Your task to perform on an android device: Search for flights from NYC to Sydney Image 0: 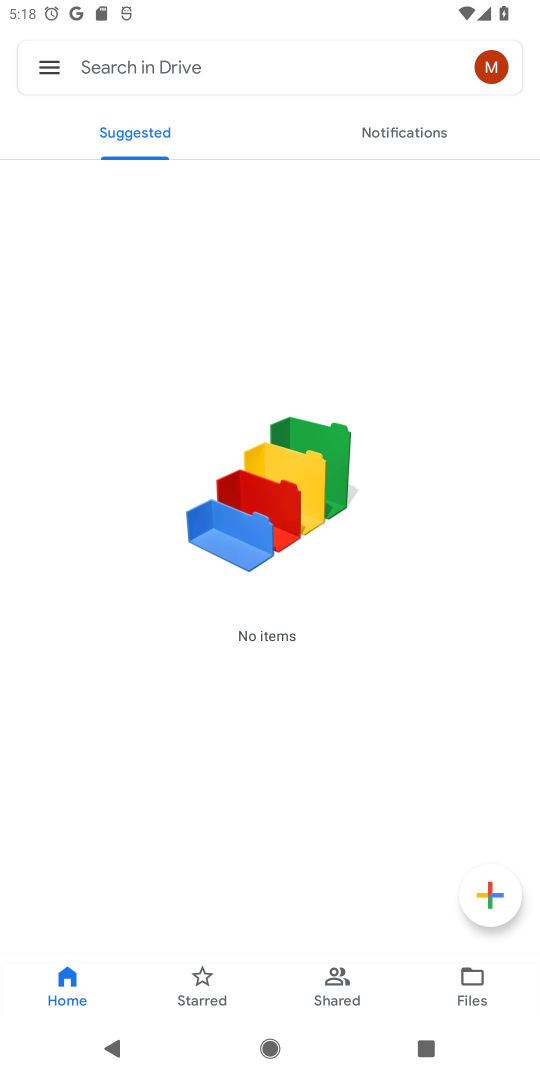
Step 0: press home button
Your task to perform on an android device: Search for flights from NYC to Sydney Image 1: 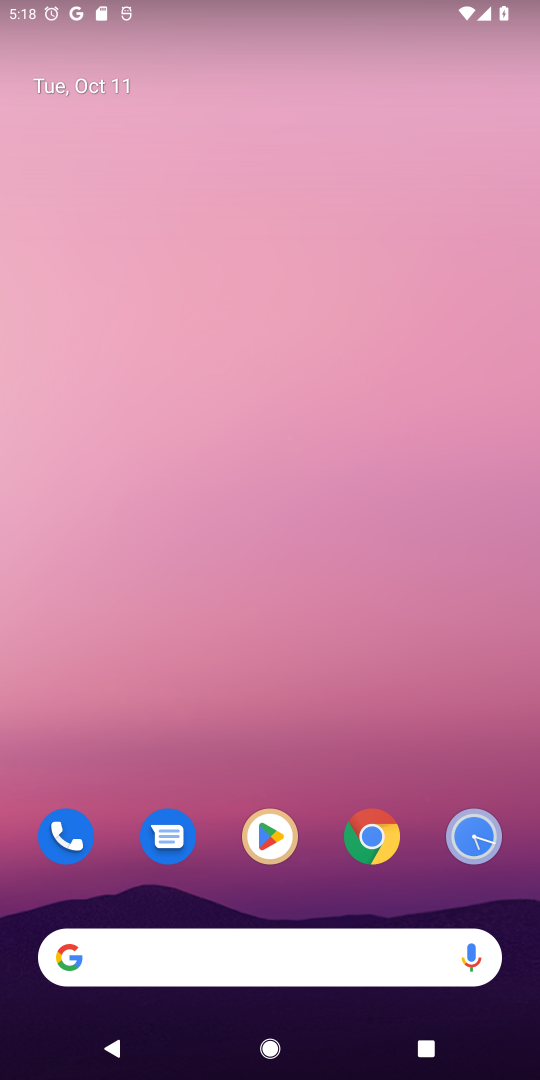
Step 1: drag from (394, 1030) to (356, 958)
Your task to perform on an android device: Search for flights from NYC to Sydney Image 2: 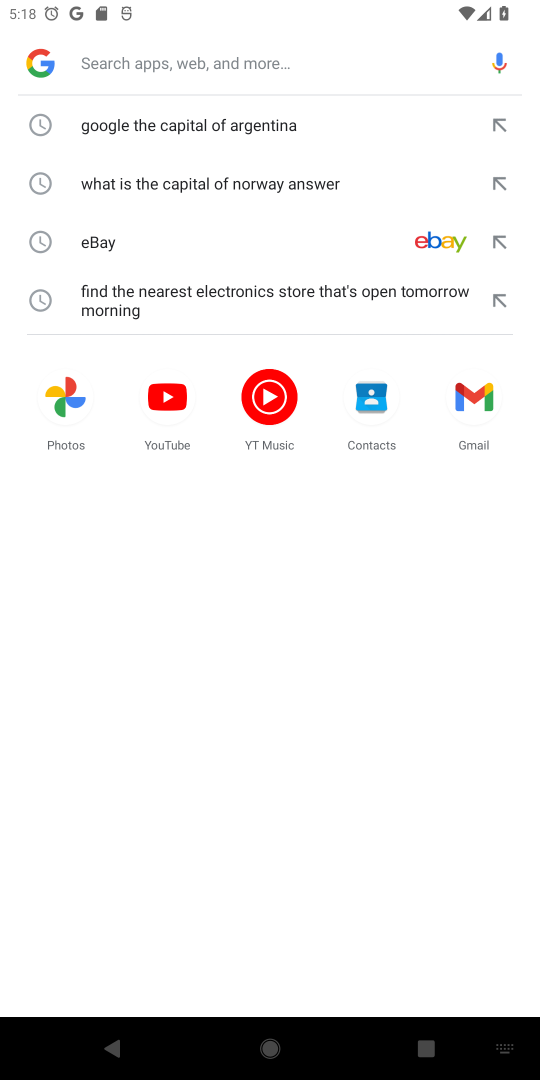
Step 2: type " flights from NYC to Sydney"
Your task to perform on an android device: Search for flights from NYC to Sydney Image 3: 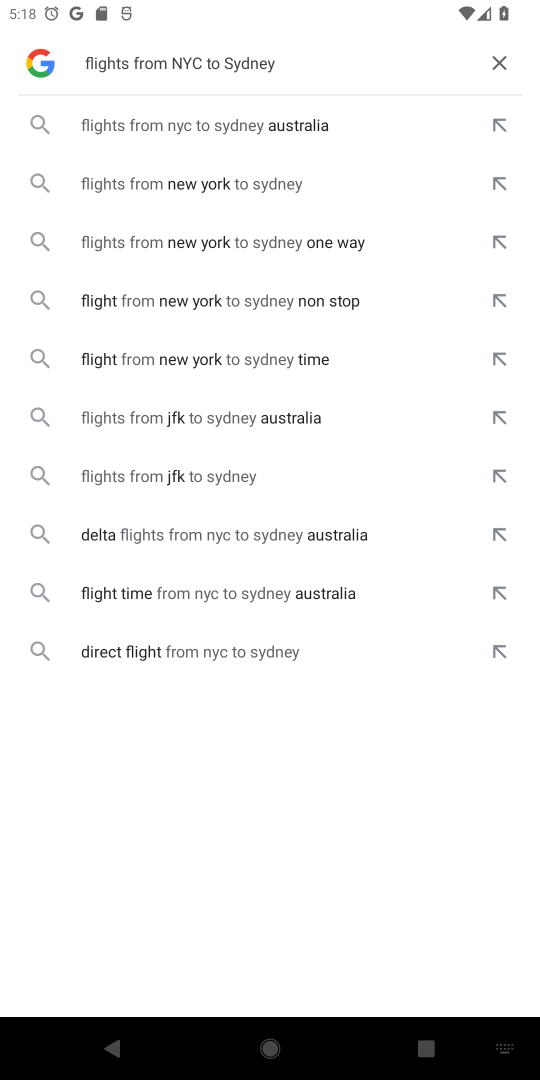
Step 3: click (252, 135)
Your task to perform on an android device: Search for flights from NYC to Sydney Image 4: 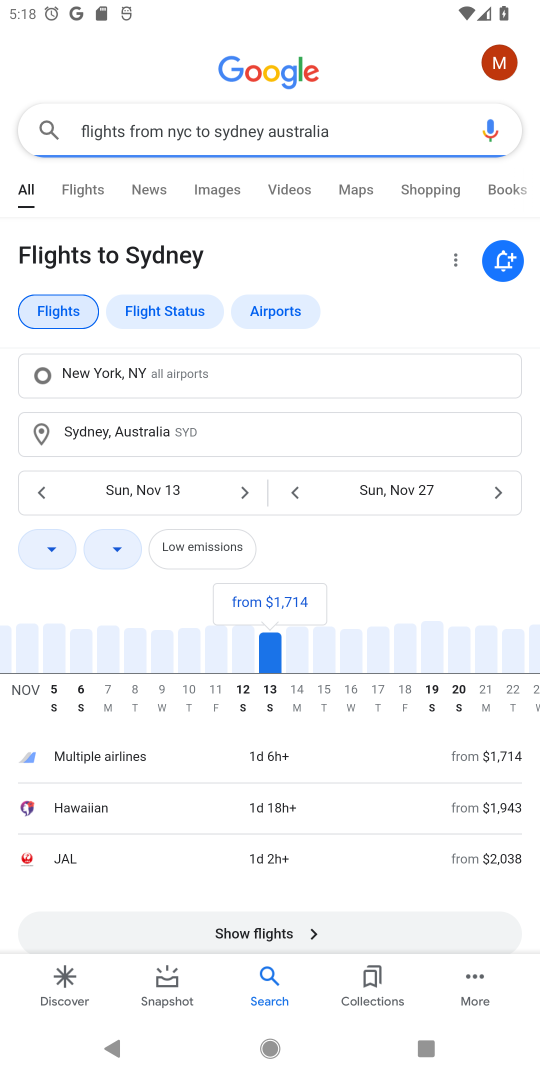
Step 4: task complete